Your task to perform on an android device: open a bookmark in the chrome app Image 0: 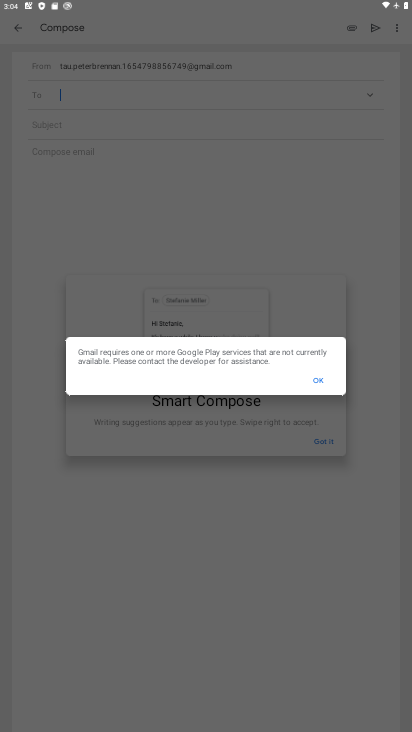
Step 0: press home button
Your task to perform on an android device: open a bookmark in the chrome app Image 1: 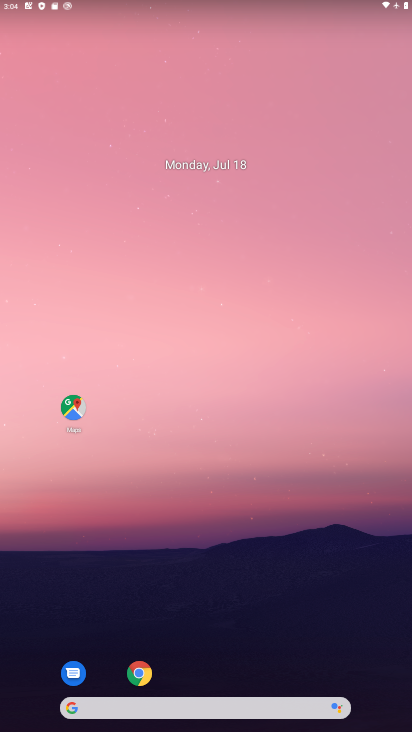
Step 1: drag from (269, 623) to (289, 26)
Your task to perform on an android device: open a bookmark in the chrome app Image 2: 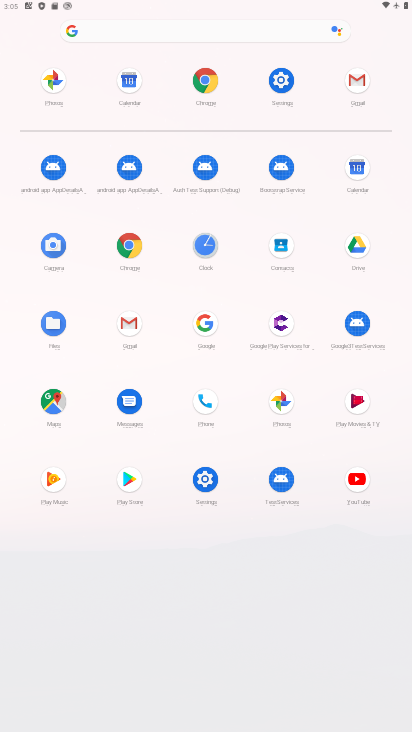
Step 2: click (192, 81)
Your task to perform on an android device: open a bookmark in the chrome app Image 3: 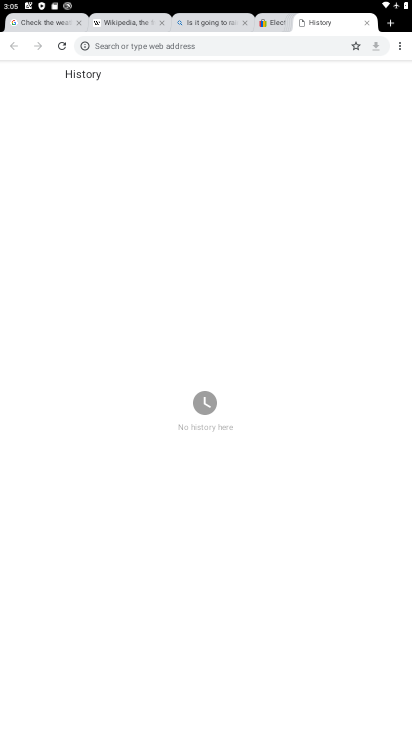
Step 3: click (406, 37)
Your task to perform on an android device: open a bookmark in the chrome app Image 4: 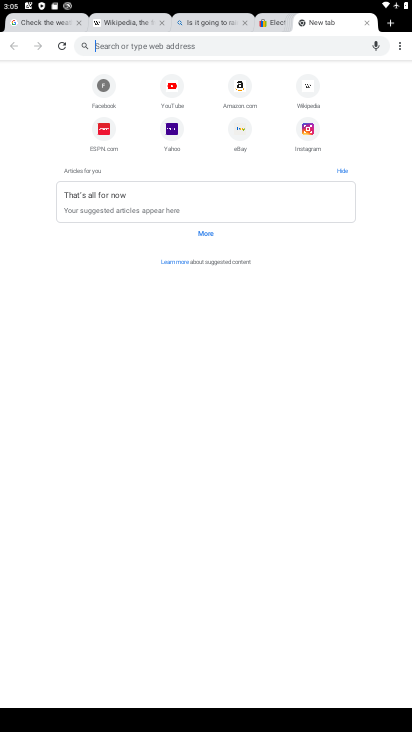
Step 4: click (399, 48)
Your task to perform on an android device: open a bookmark in the chrome app Image 5: 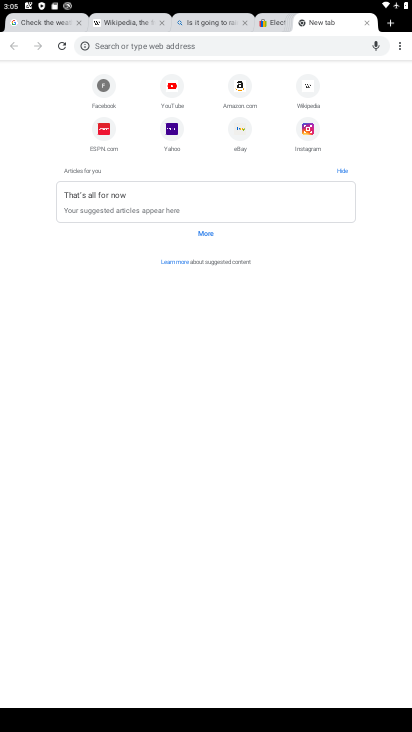
Step 5: click (399, 48)
Your task to perform on an android device: open a bookmark in the chrome app Image 6: 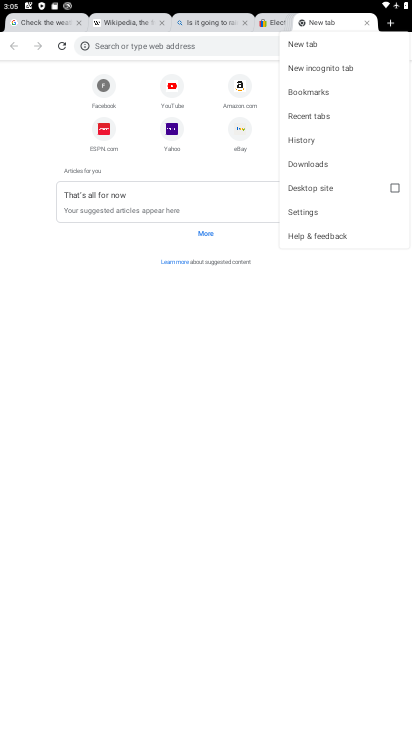
Step 6: click (317, 88)
Your task to perform on an android device: open a bookmark in the chrome app Image 7: 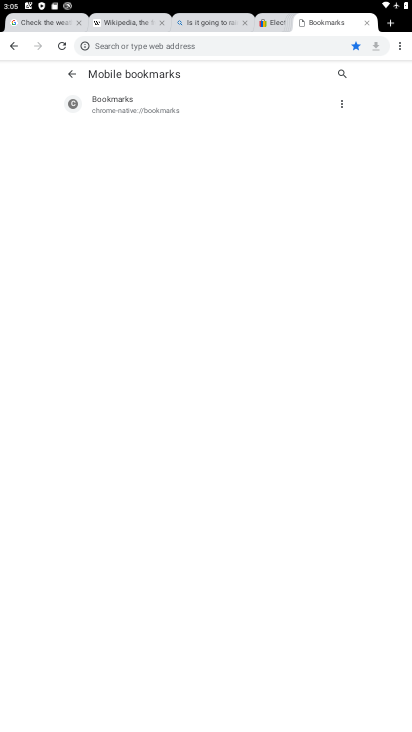
Step 7: task complete